Your task to perform on an android device: toggle wifi Image 0: 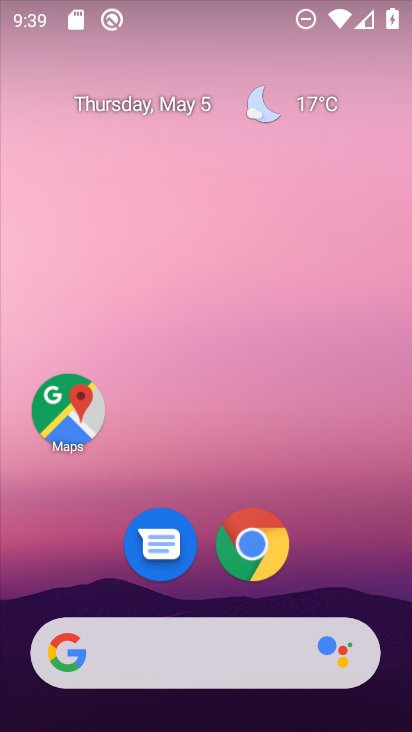
Step 0: drag from (173, 3) to (182, 459)
Your task to perform on an android device: toggle wifi Image 1: 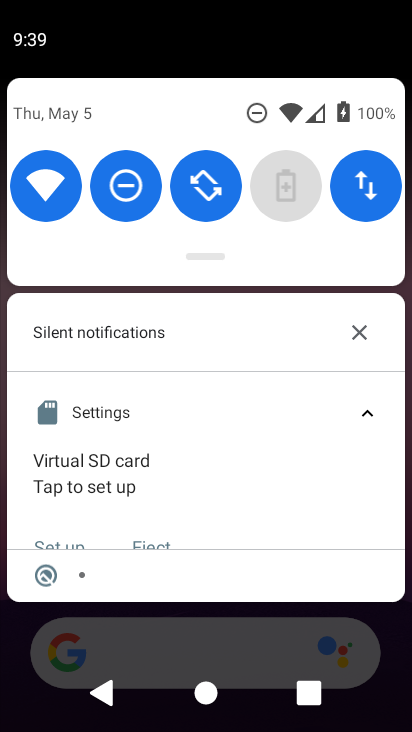
Step 1: click (47, 179)
Your task to perform on an android device: toggle wifi Image 2: 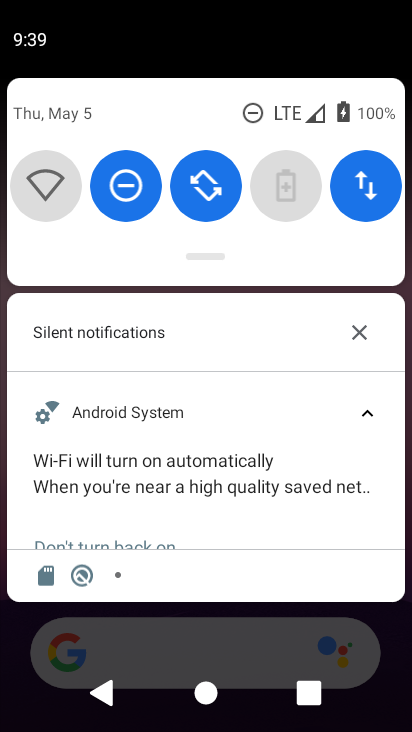
Step 2: task complete